Your task to perform on an android device: Install the CNN app Image 0: 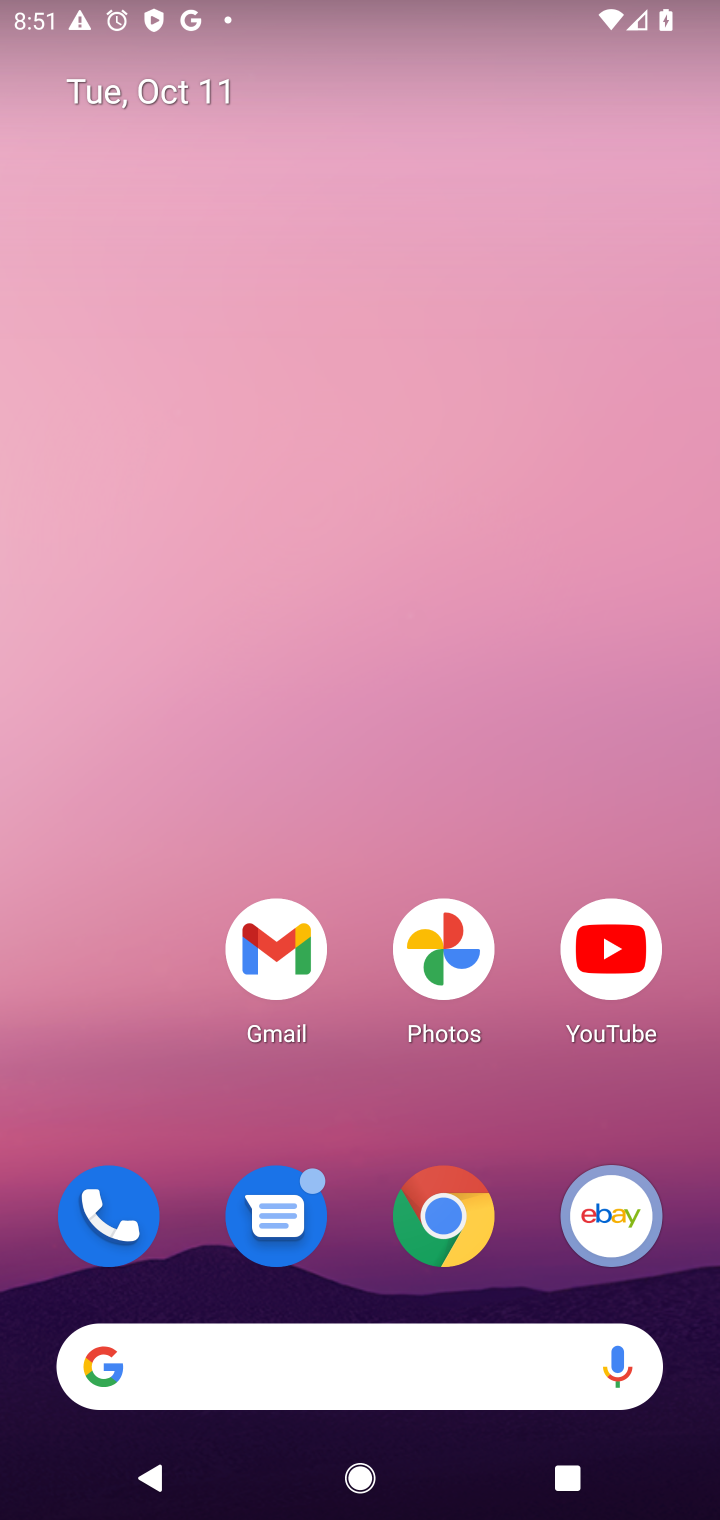
Step 0: drag from (491, 895) to (419, 341)
Your task to perform on an android device: Install the CNN app Image 1: 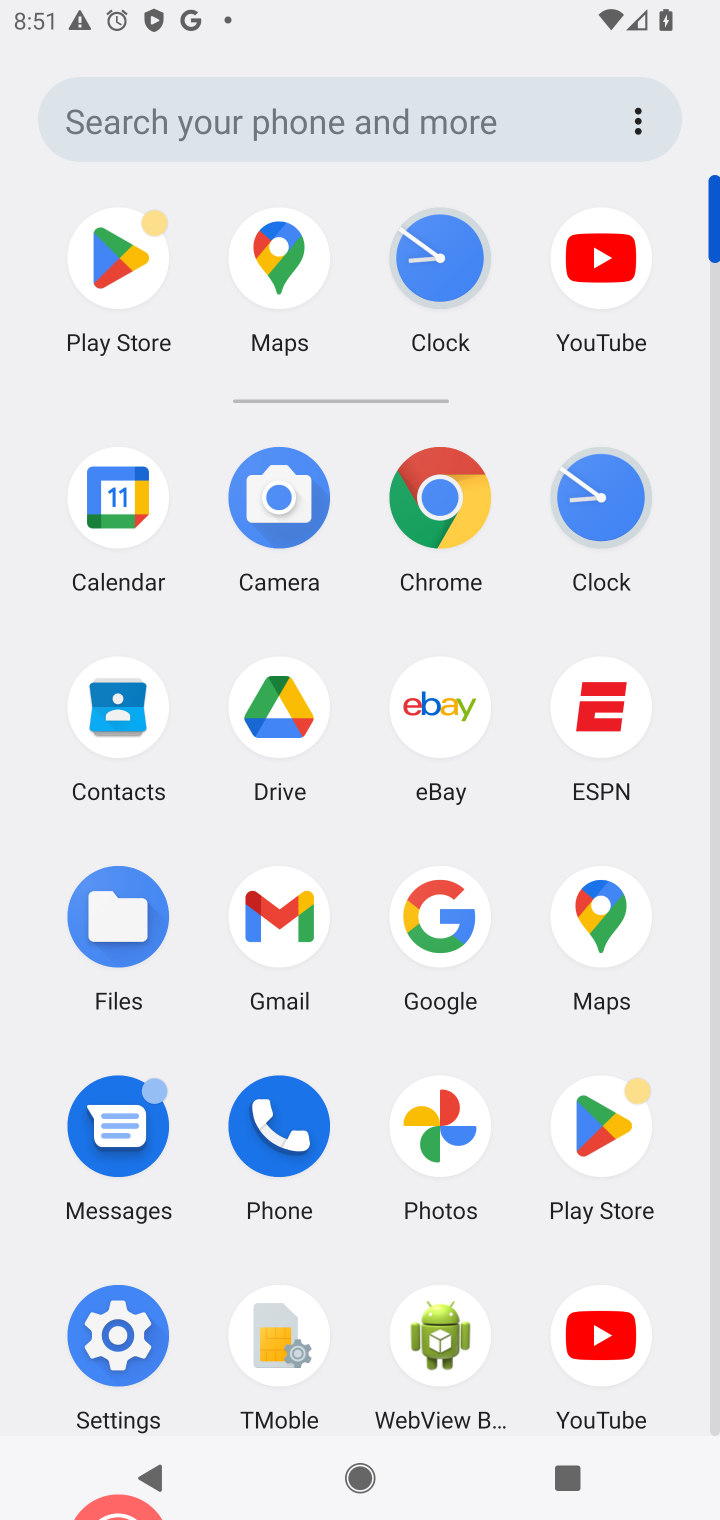
Step 1: click (582, 1083)
Your task to perform on an android device: Install the CNN app Image 2: 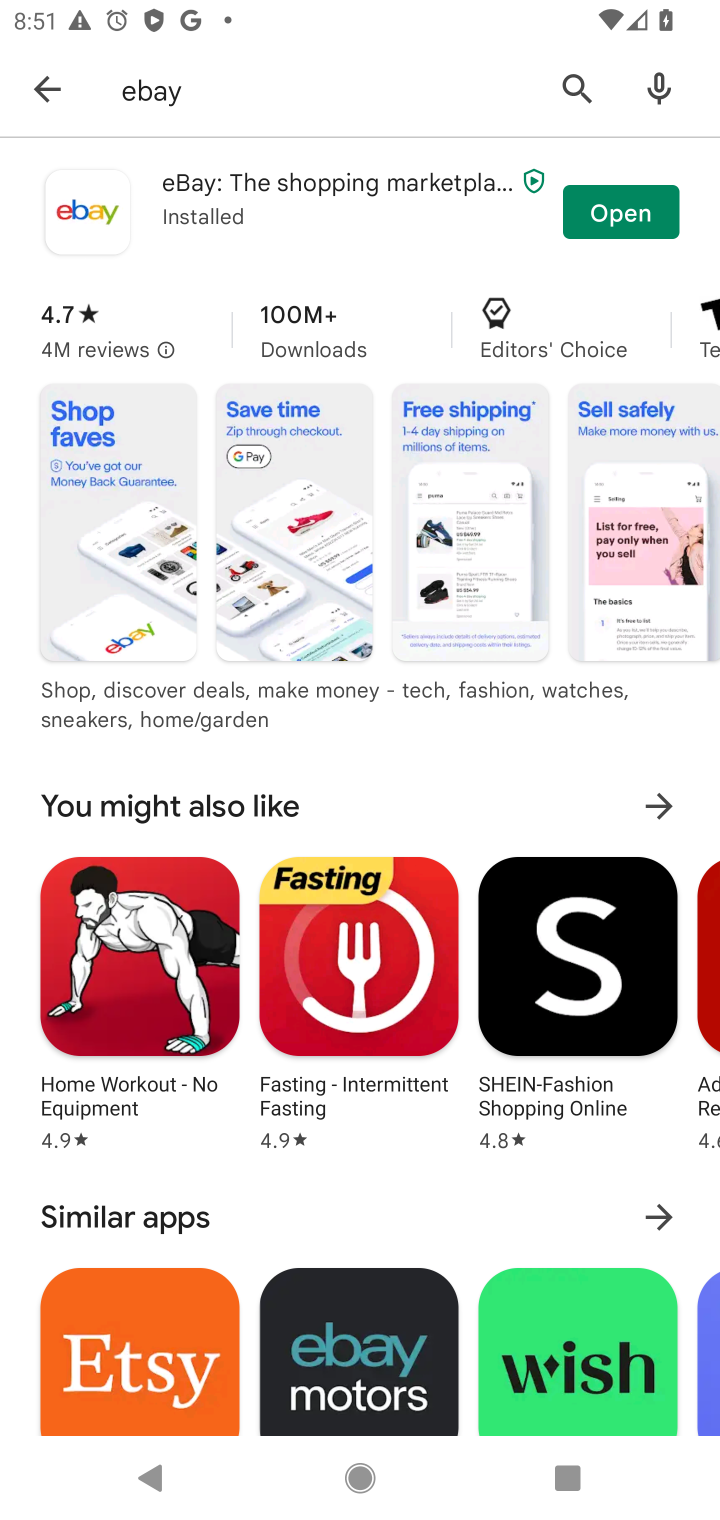
Step 2: click (581, 101)
Your task to perform on an android device: Install the CNN app Image 3: 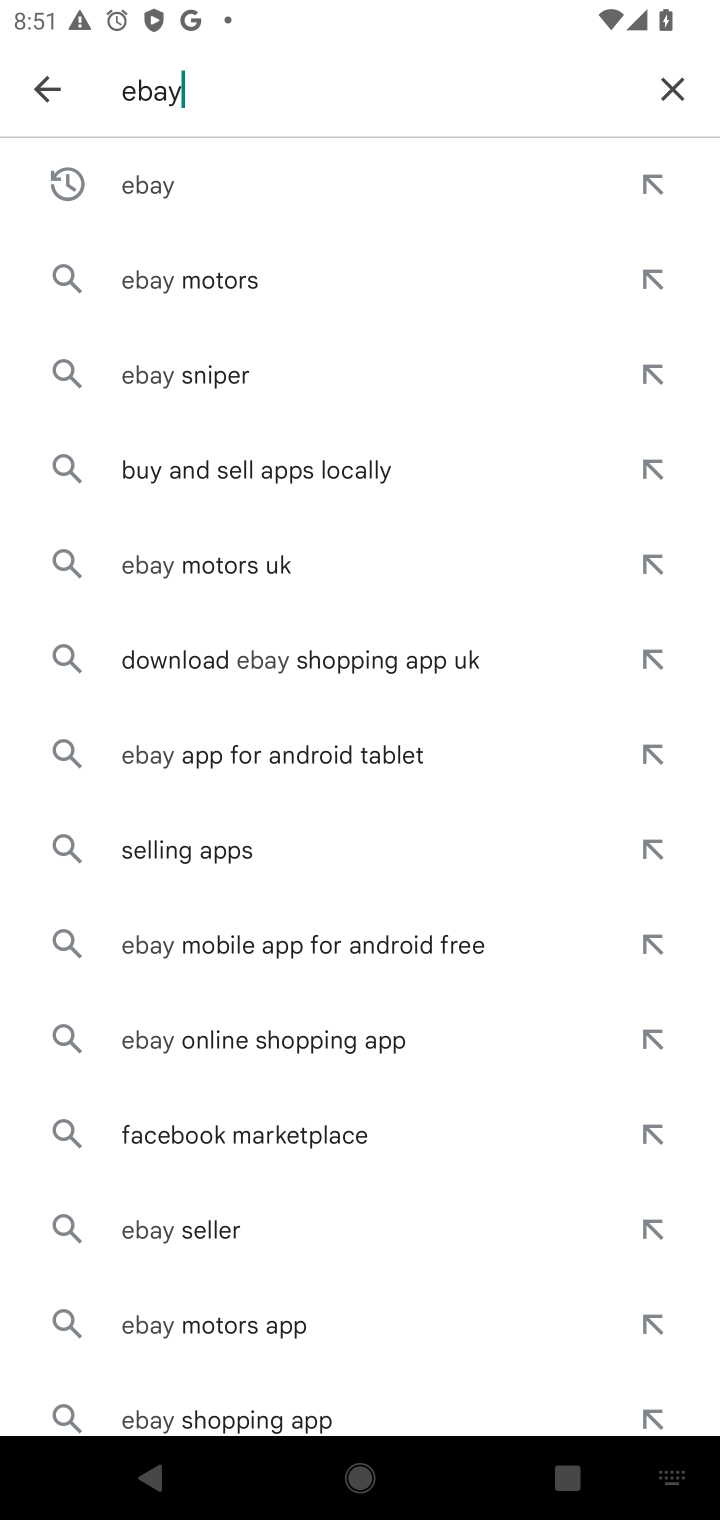
Step 3: click (674, 89)
Your task to perform on an android device: Install the CNN app Image 4: 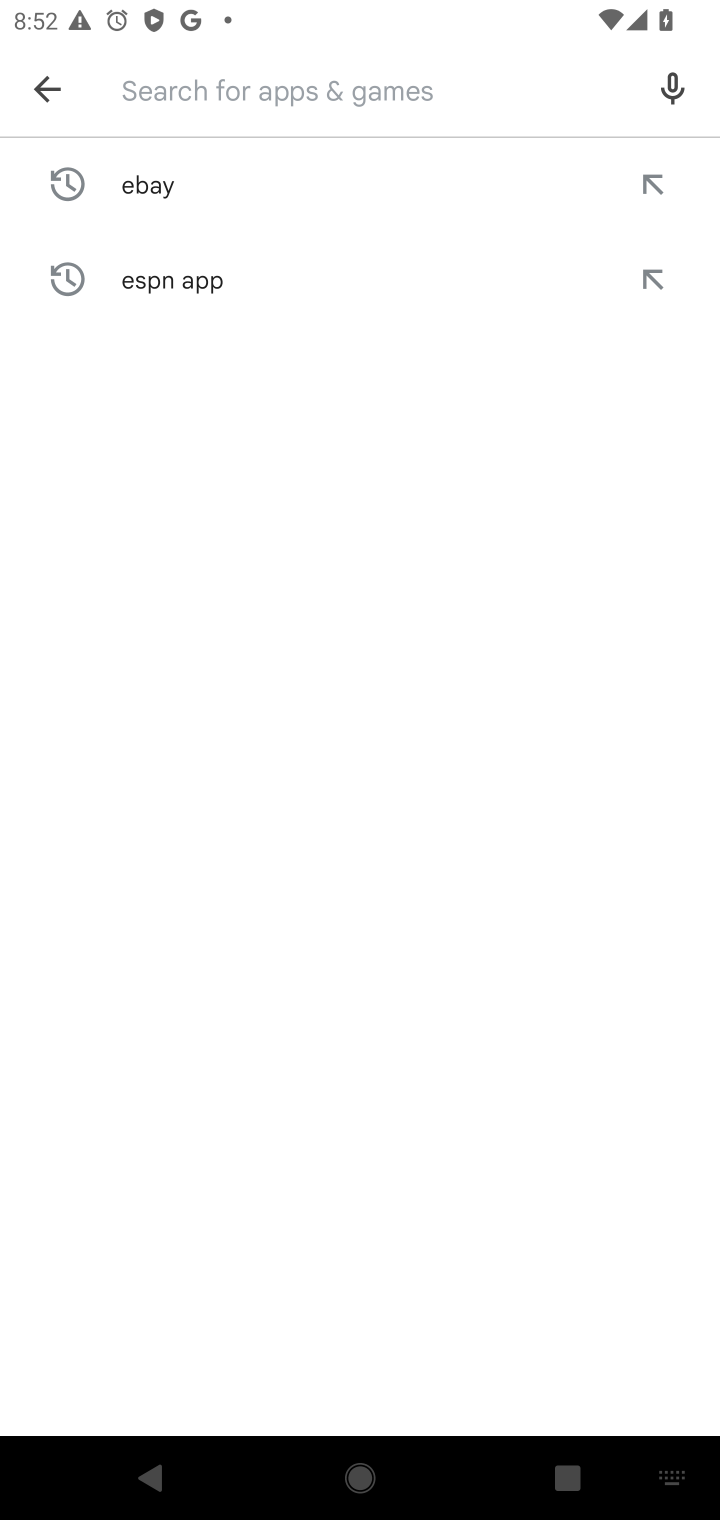
Step 4: type "cnn app"
Your task to perform on an android device: Install the CNN app Image 5: 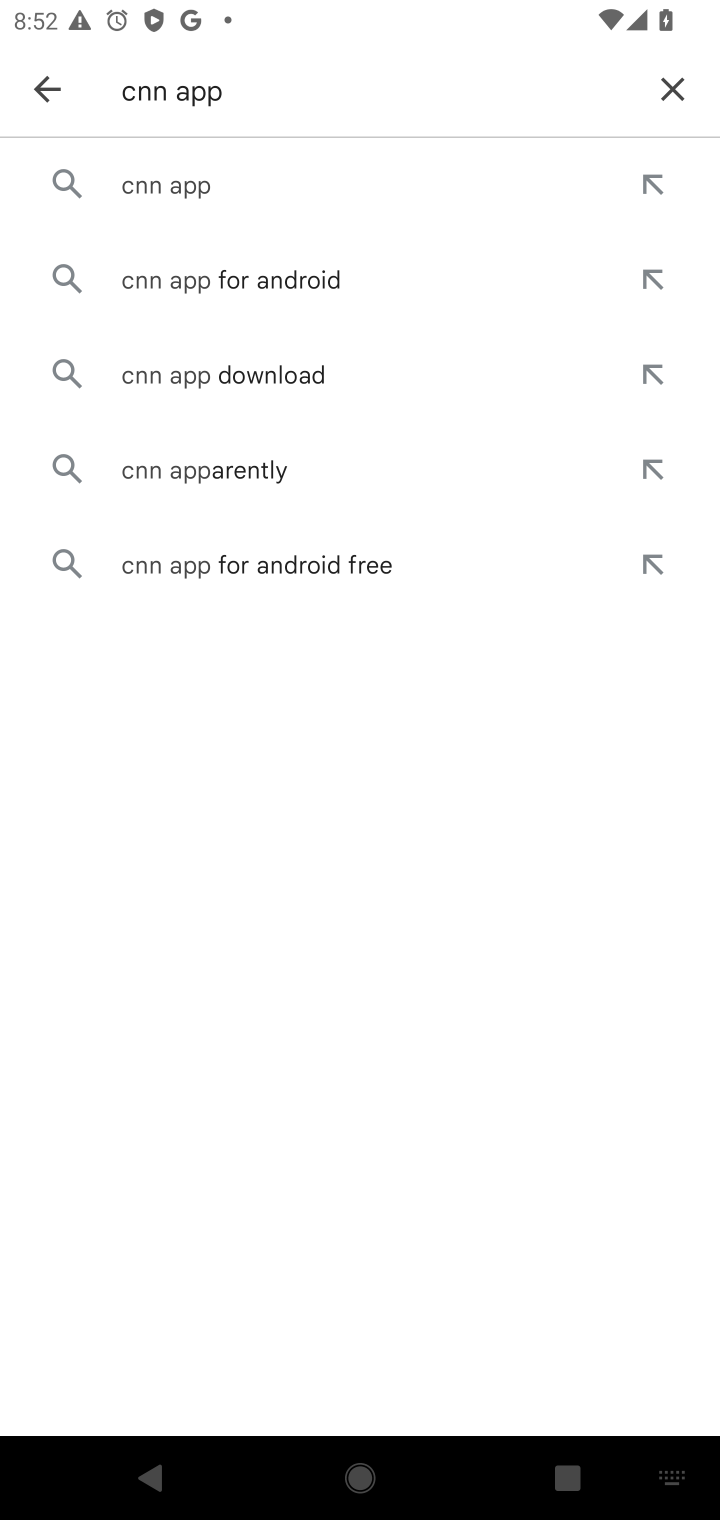
Step 5: click (174, 179)
Your task to perform on an android device: Install the CNN app Image 6: 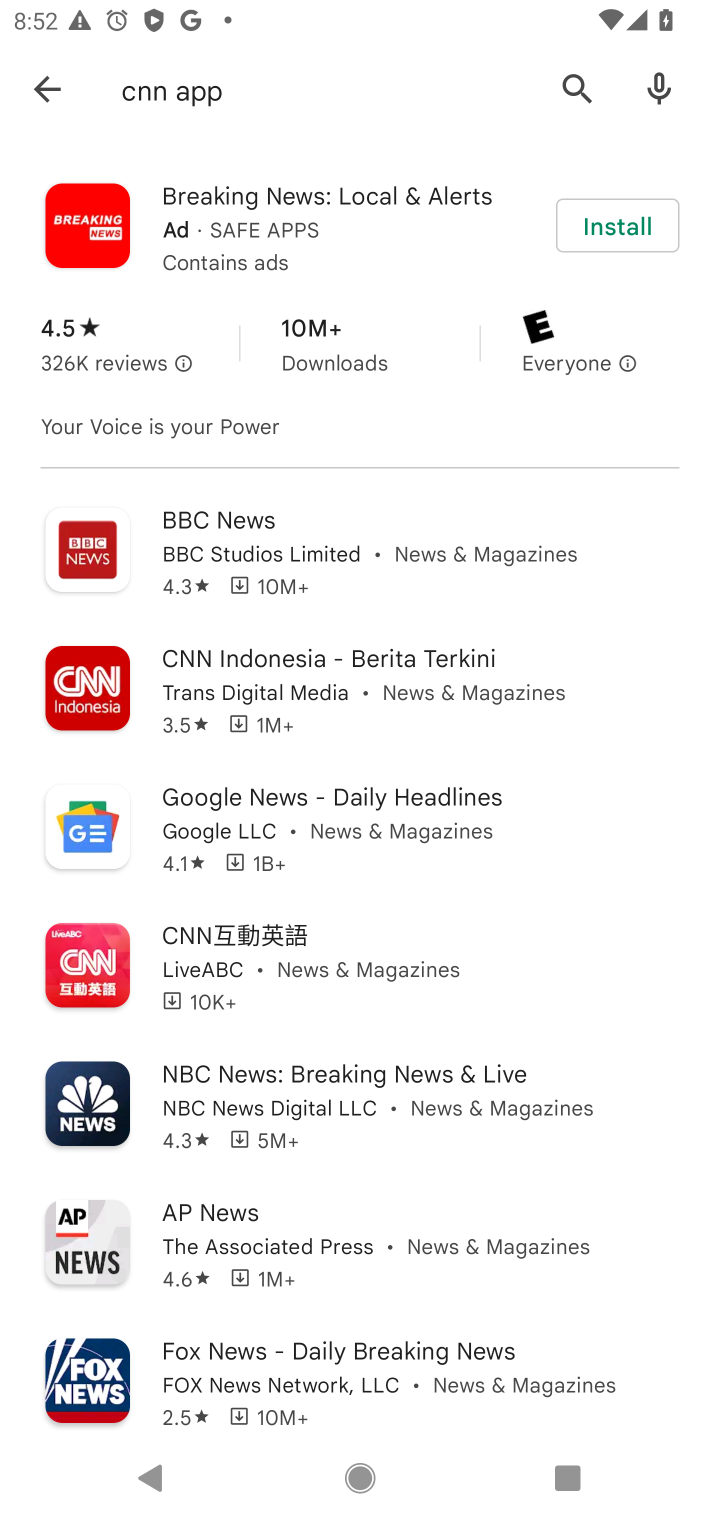
Step 6: click (616, 215)
Your task to perform on an android device: Install the CNN app Image 7: 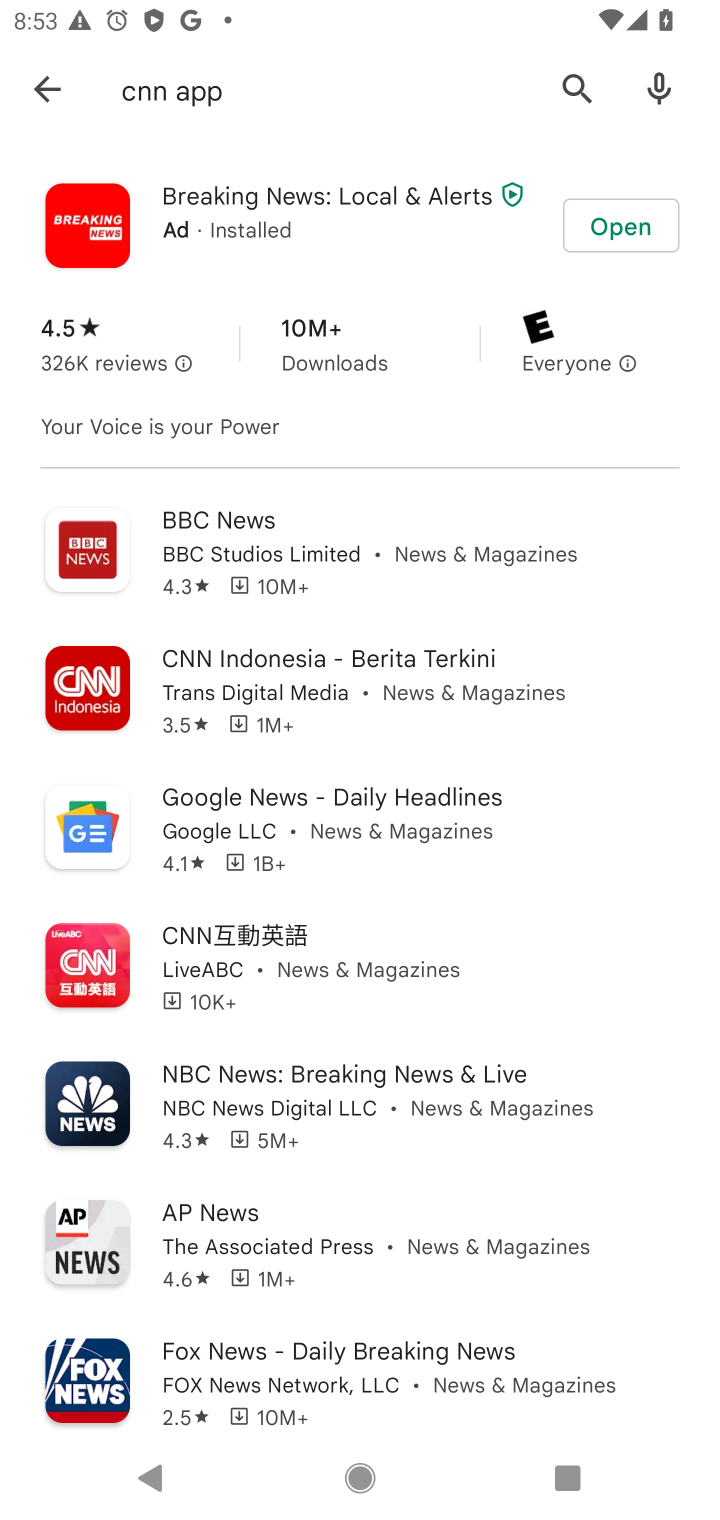
Step 7: task complete